Your task to perform on an android device: toggle javascript in the chrome app Image 0: 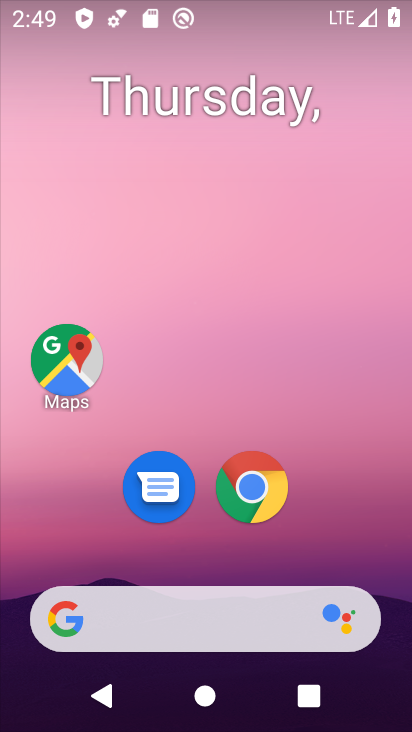
Step 0: drag from (354, 521) to (342, 129)
Your task to perform on an android device: toggle javascript in the chrome app Image 1: 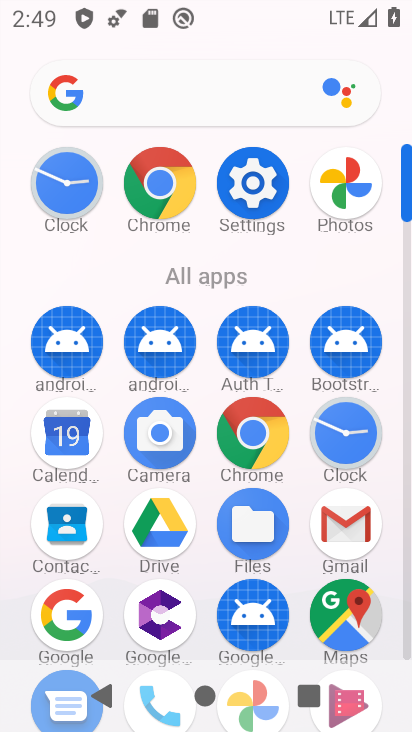
Step 1: click (181, 205)
Your task to perform on an android device: toggle javascript in the chrome app Image 2: 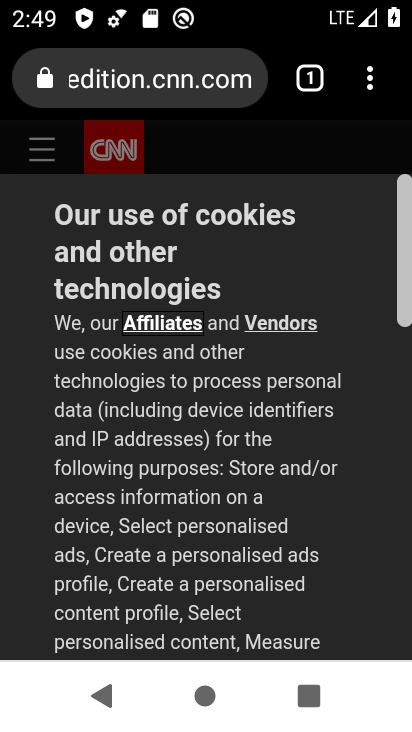
Step 2: drag from (376, 77) to (239, 559)
Your task to perform on an android device: toggle javascript in the chrome app Image 3: 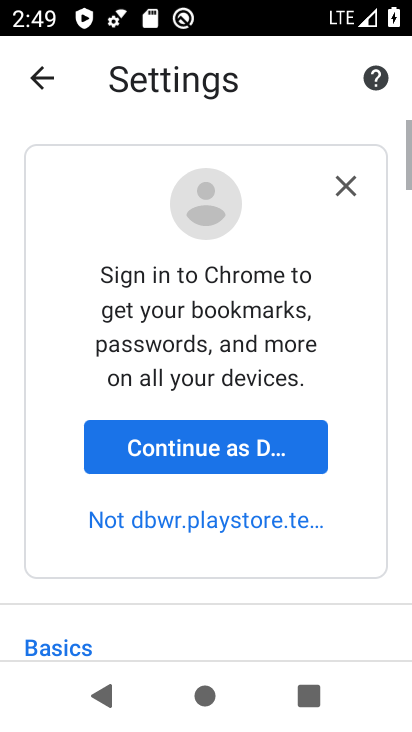
Step 3: drag from (189, 585) to (156, 213)
Your task to perform on an android device: toggle javascript in the chrome app Image 4: 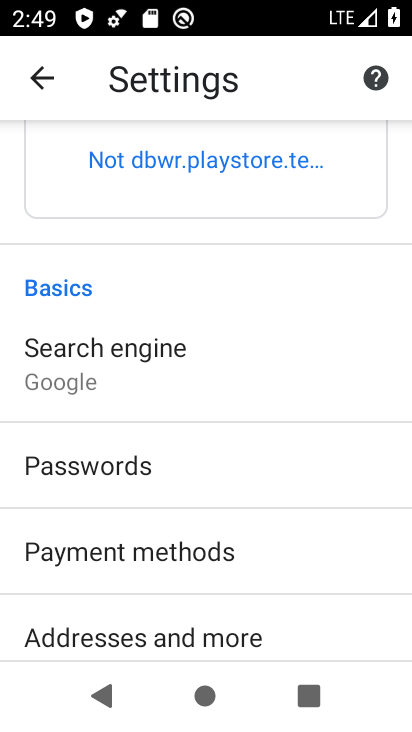
Step 4: drag from (178, 550) to (116, 232)
Your task to perform on an android device: toggle javascript in the chrome app Image 5: 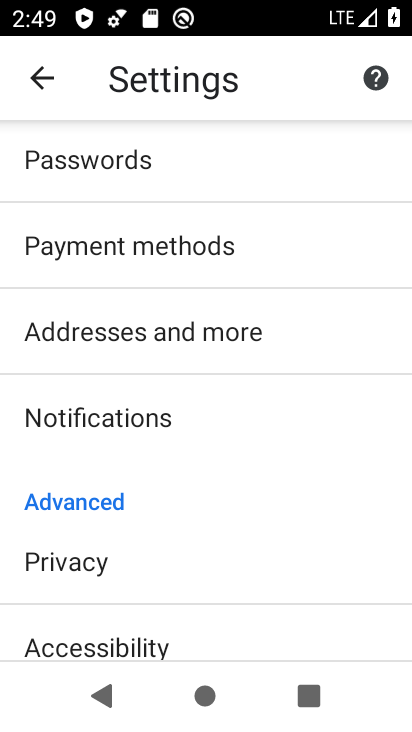
Step 5: drag from (99, 552) to (100, 237)
Your task to perform on an android device: toggle javascript in the chrome app Image 6: 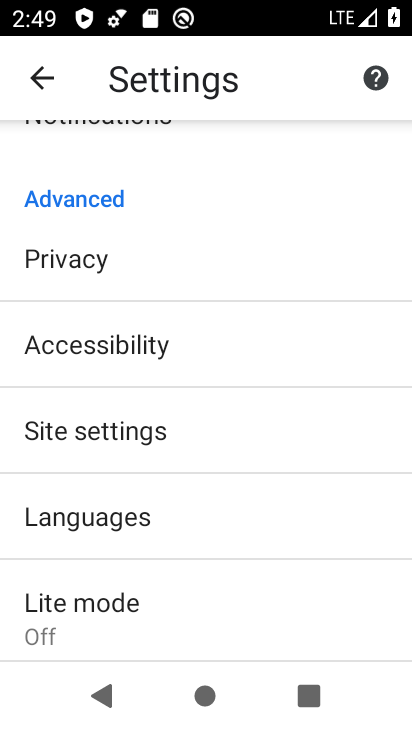
Step 6: click (61, 444)
Your task to perform on an android device: toggle javascript in the chrome app Image 7: 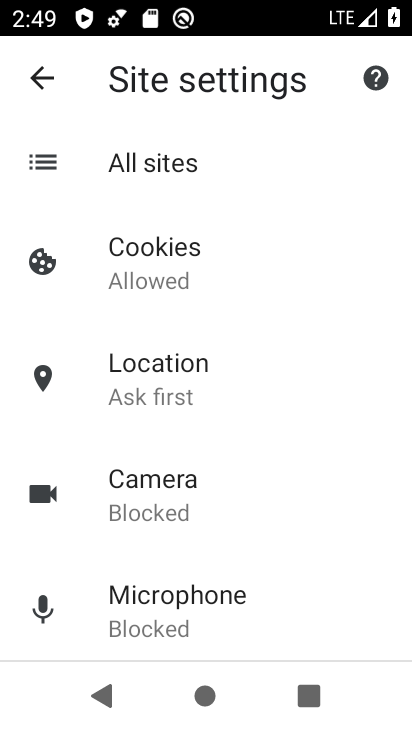
Step 7: drag from (144, 558) to (247, 281)
Your task to perform on an android device: toggle javascript in the chrome app Image 8: 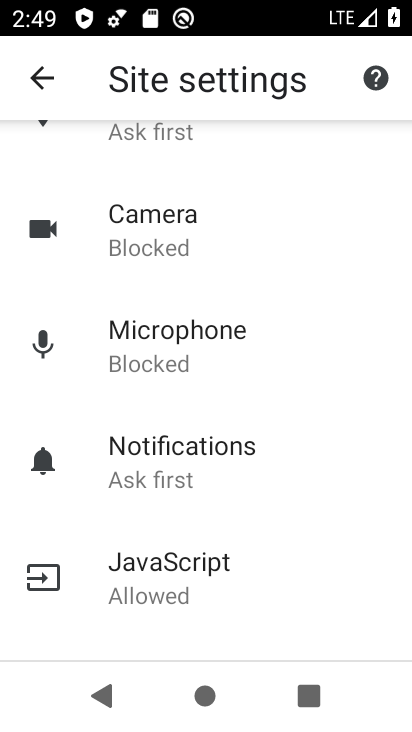
Step 8: click (163, 567)
Your task to perform on an android device: toggle javascript in the chrome app Image 9: 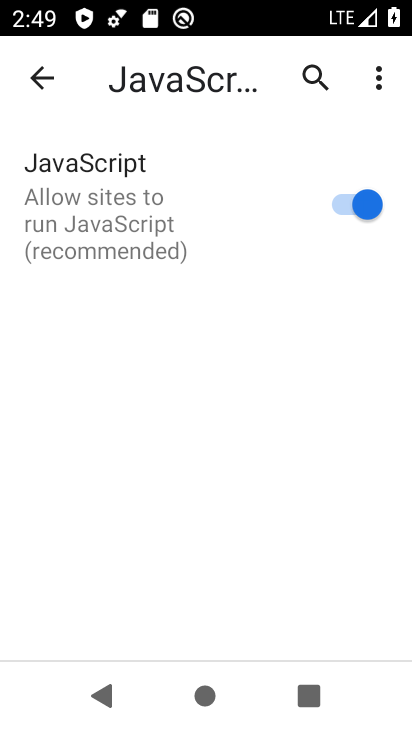
Step 9: click (328, 204)
Your task to perform on an android device: toggle javascript in the chrome app Image 10: 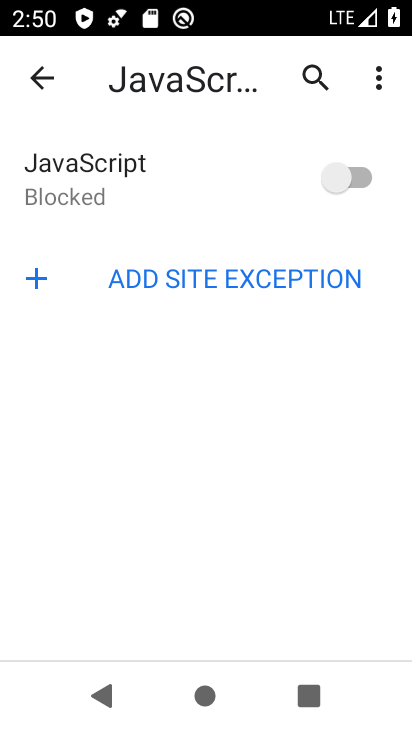
Step 10: task complete